Your task to perform on an android device: Open the calendar app, open the side menu, and click the "Day" option Image 0: 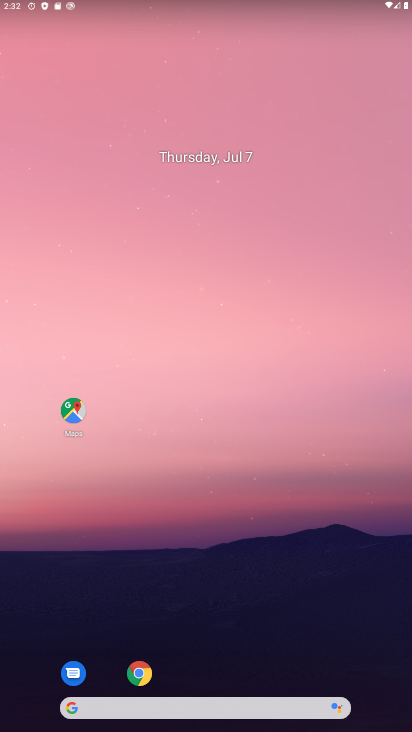
Step 0: drag from (202, 713) to (204, 2)
Your task to perform on an android device: Open the calendar app, open the side menu, and click the "Day" option Image 1: 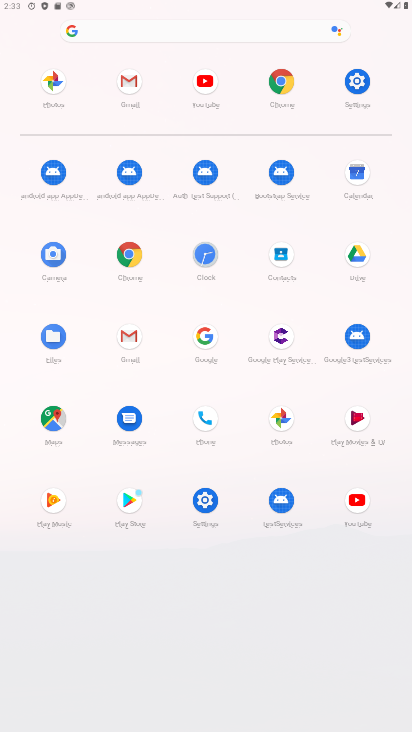
Step 1: click (368, 173)
Your task to perform on an android device: Open the calendar app, open the side menu, and click the "Day" option Image 2: 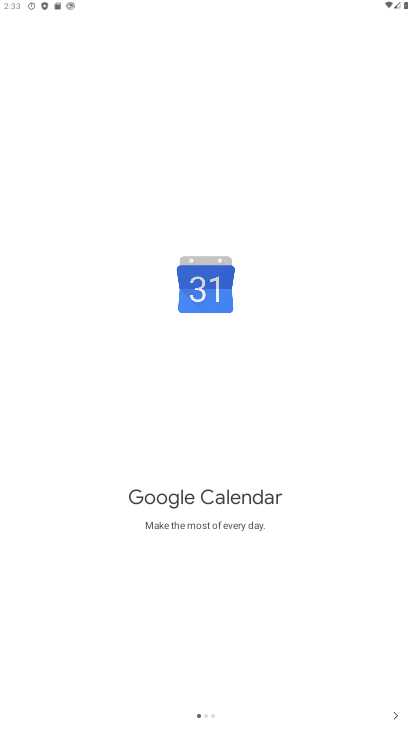
Step 2: click (395, 706)
Your task to perform on an android device: Open the calendar app, open the side menu, and click the "Day" option Image 3: 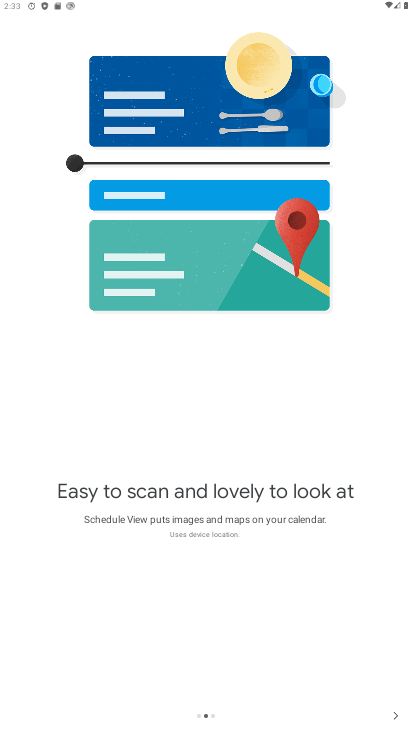
Step 3: click (395, 706)
Your task to perform on an android device: Open the calendar app, open the side menu, and click the "Day" option Image 4: 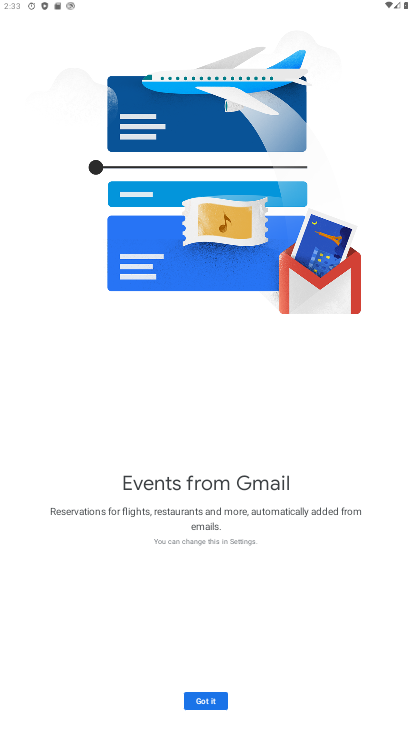
Step 4: click (217, 697)
Your task to perform on an android device: Open the calendar app, open the side menu, and click the "Day" option Image 5: 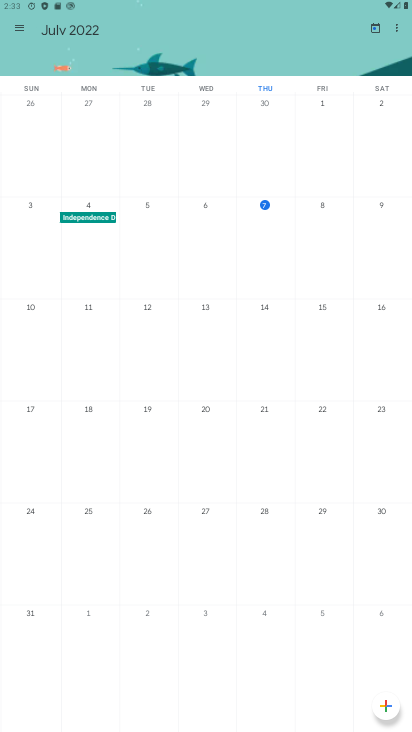
Step 5: click (24, 32)
Your task to perform on an android device: Open the calendar app, open the side menu, and click the "Day" option Image 6: 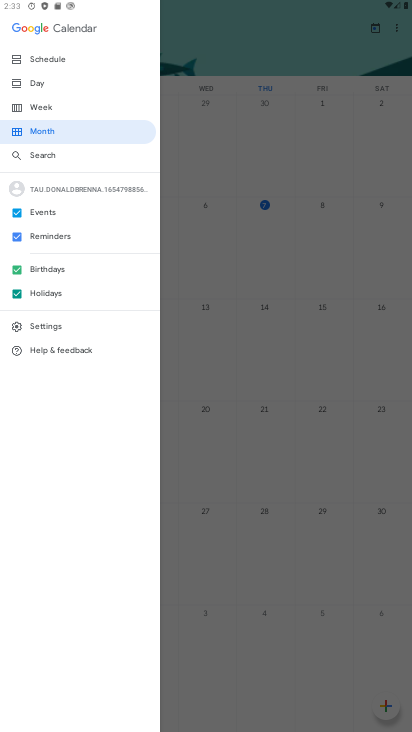
Step 6: click (29, 87)
Your task to perform on an android device: Open the calendar app, open the side menu, and click the "Day" option Image 7: 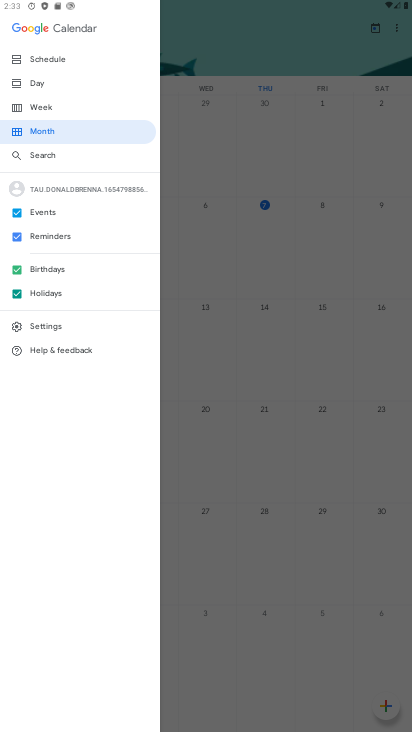
Step 7: click (29, 83)
Your task to perform on an android device: Open the calendar app, open the side menu, and click the "Day" option Image 8: 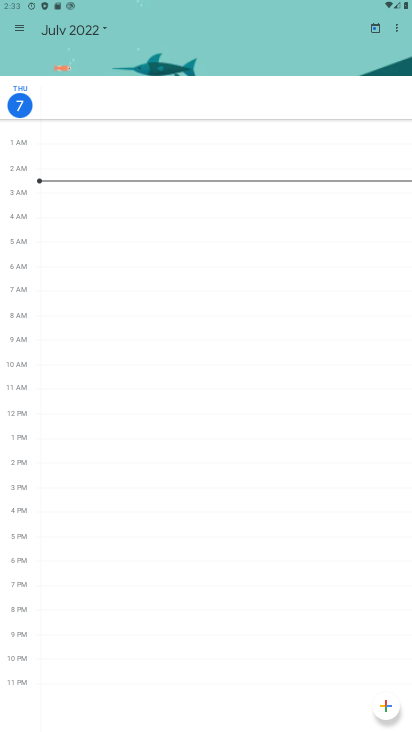
Step 8: task complete